Your task to perform on an android device: Show me popular videos on Youtube Image 0: 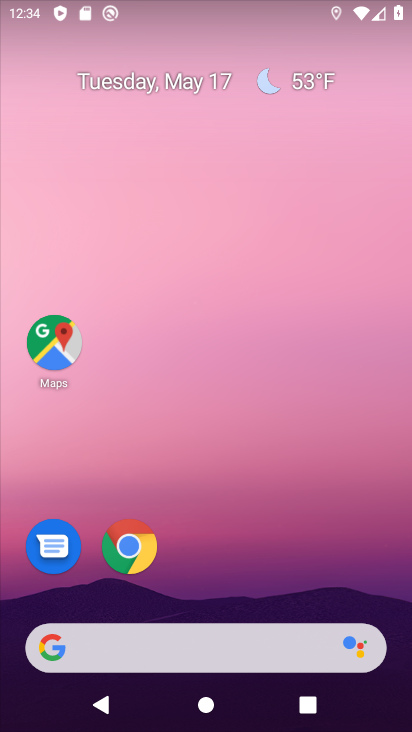
Step 0: drag from (221, 593) to (230, 93)
Your task to perform on an android device: Show me popular videos on Youtube Image 1: 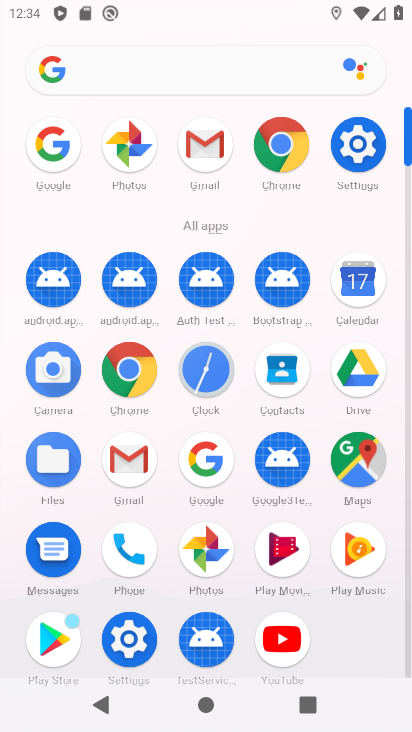
Step 1: click (265, 628)
Your task to perform on an android device: Show me popular videos on Youtube Image 2: 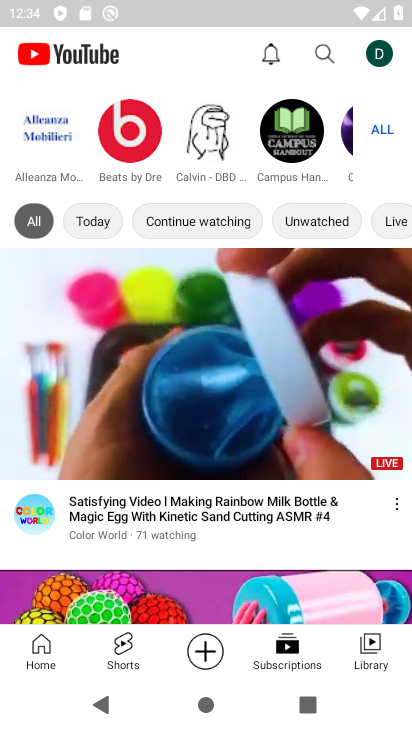
Step 2: click (314, 42)
Your task to perform on an android device: Show me popular videos on Youtube Image 3: 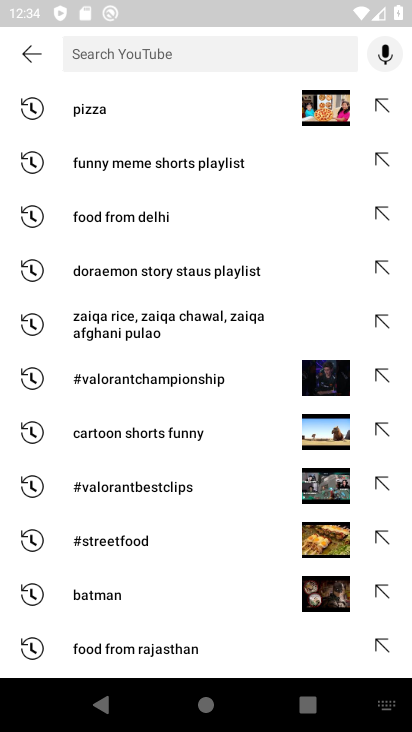
Step 3: type "popular video"
Your task to perform on an android device: Show me popular videos on Youtube Image 4: 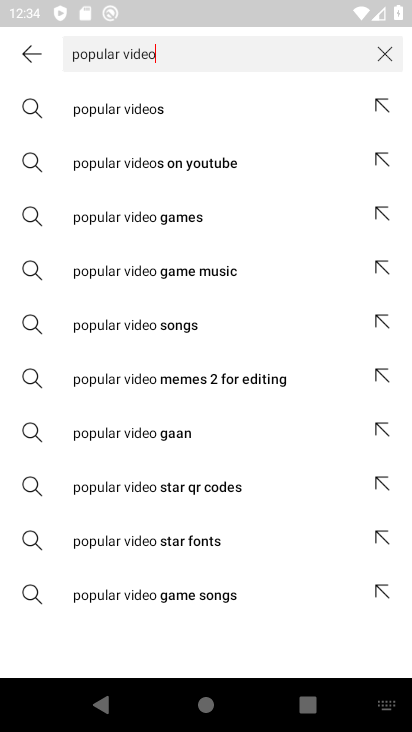
Step 4: click (152, 108)
Your task to perform on an android device: Show me popular videos on Youtube Image 5: 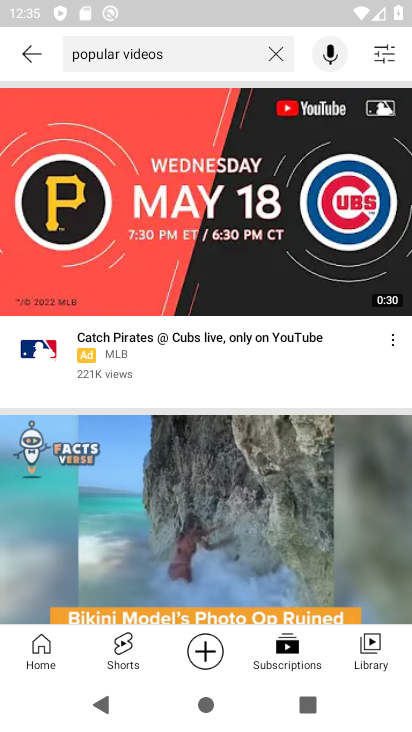
Step 5: task complete